Your task to perform on an android device: turn off wifi Image 0: 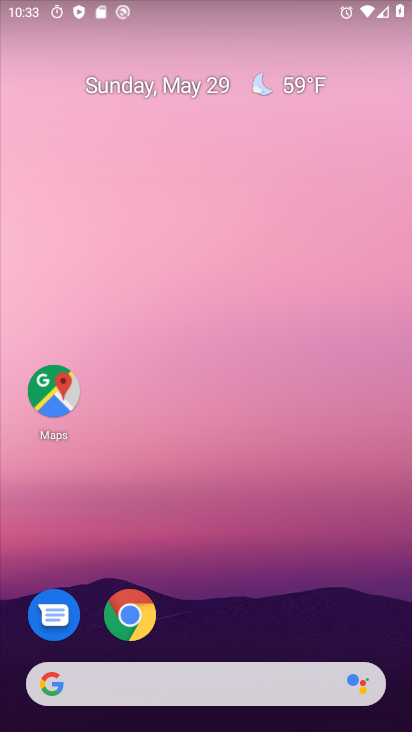
Step 0: drag from (236, 610) to (194, 96)
Your task to perform on an android device: turn off wifi Image 1: 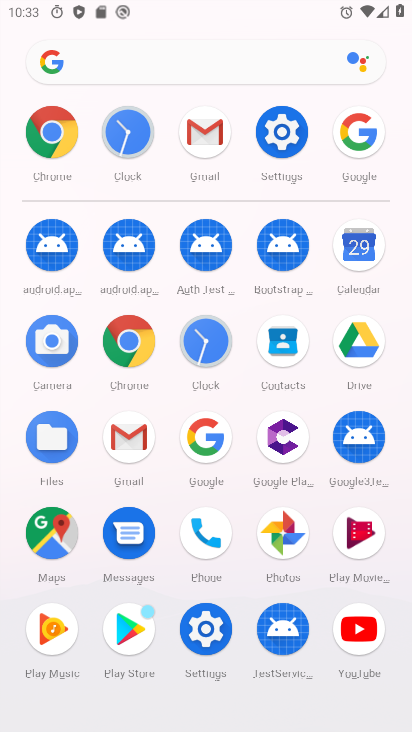
Step 1: click (276, 136)
Your task to perform on an android device: turn off wifi Image 2: 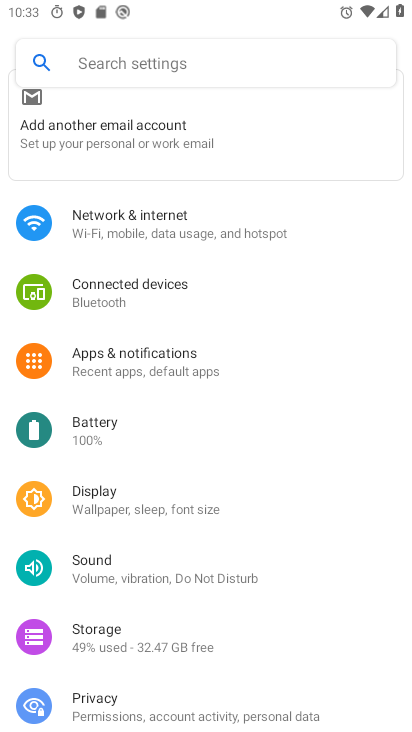
Step 2: click (161, 224)
Your task to perform on an android device: turn off wifi Image 3: 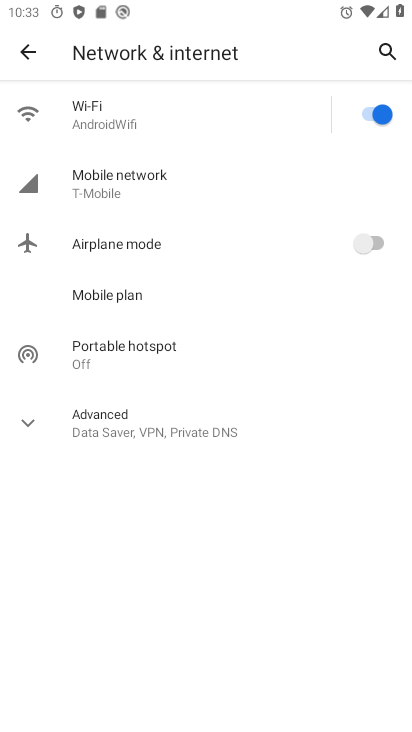
Step 3: click (374, 115)
Your task to perform on an android device: turn off wifi Image 4: 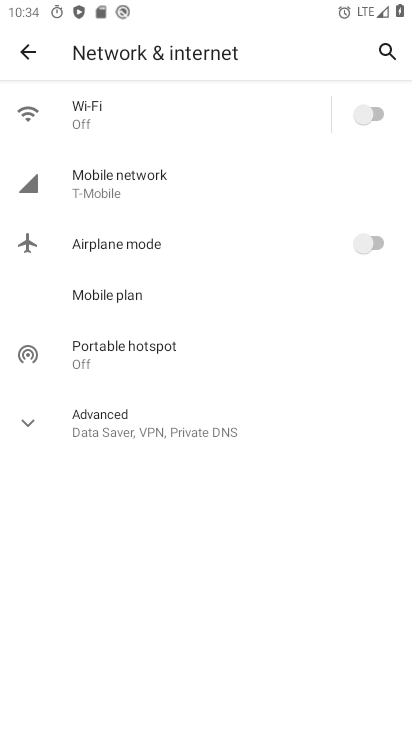
Step 4: task complete